Your task to perform on an android device: Open accessibility settings Image 0: 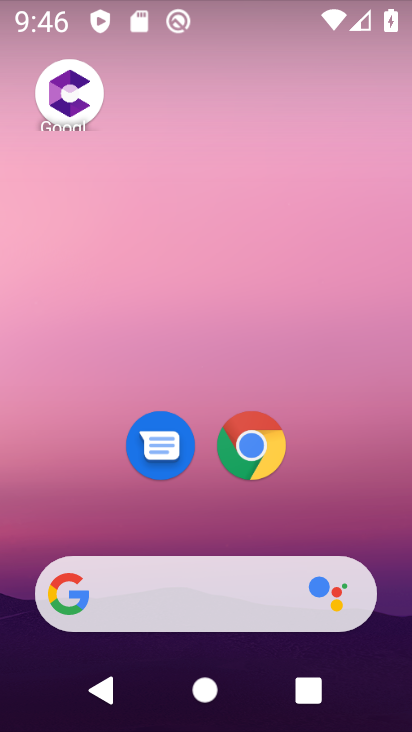
Step 0: drag from (257, 626) to (247, 99)
Your task to perform on an android device: Open accessibility settings Image 1: 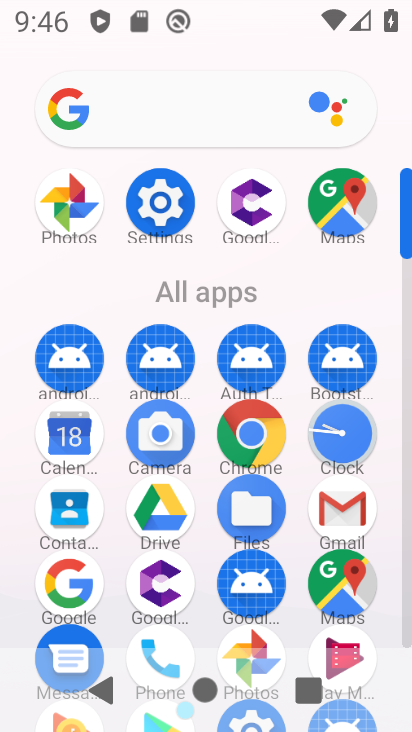
Step 1: click (161, 201)
Your task to perform on an android device: Open accessibility settings Image 2: 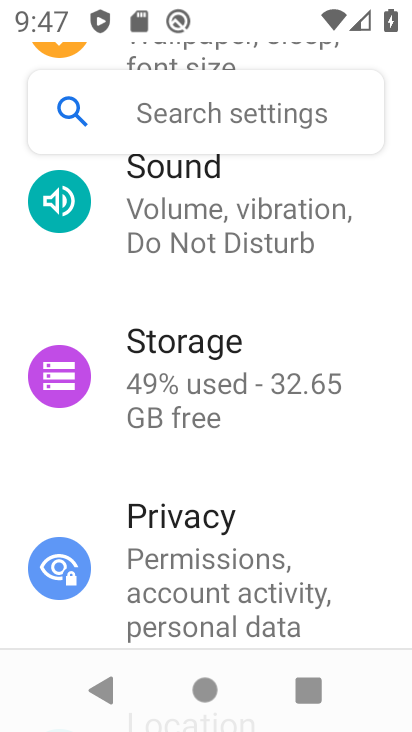
Step 2: drag from (266, 615) to (273, 213)
Your task to perform on an android device: Open accessibility settings Image 3: 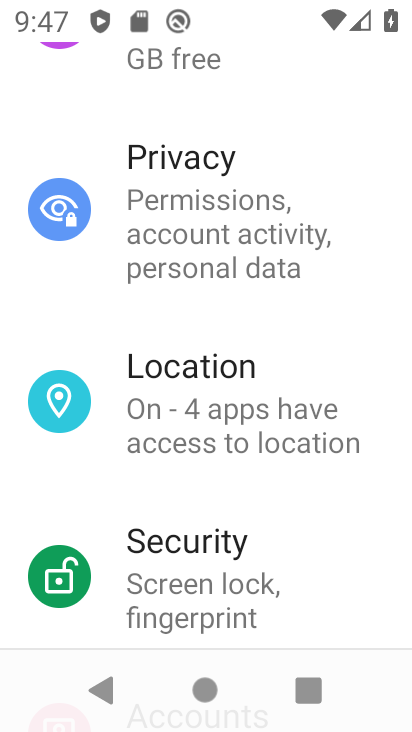
Step 3: drag from (302, 569) to (297, 131)
Your task to perform on an android device: Open accessibility settings Image 4: 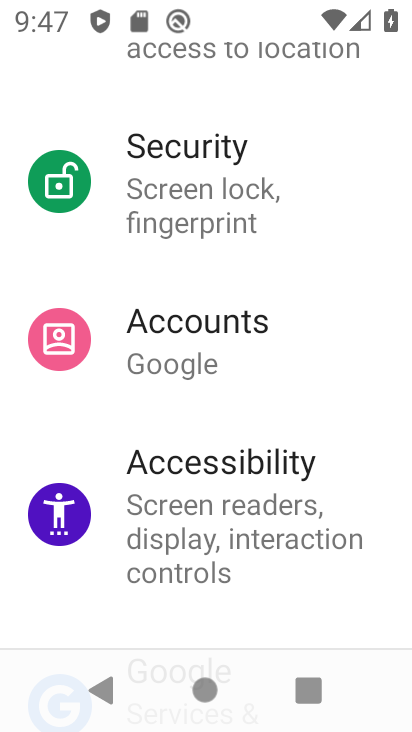
Step 4: click (184, 481)
Your task to perform on an android device: Open accessibility settings Image 5: 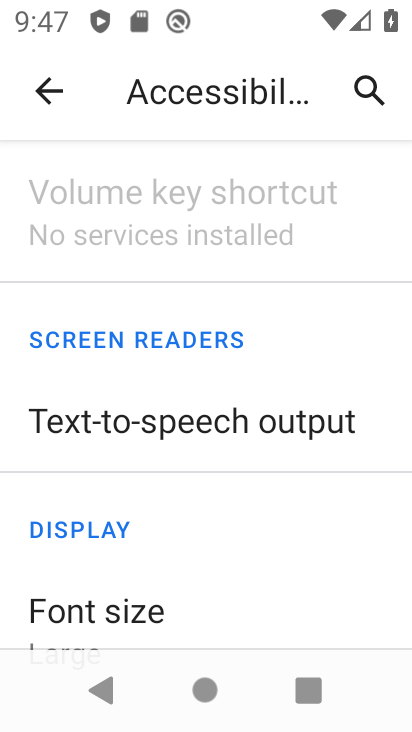
Step 5: task complete